Your task to perform on an android device: toggle notification dots Image 0: 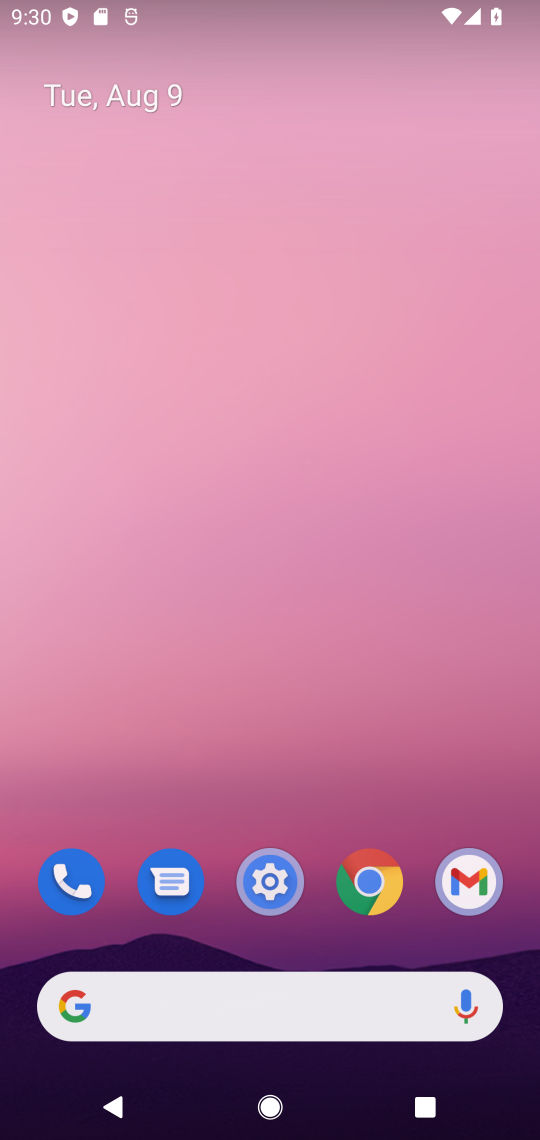
Step 0: press home button
Your task to perform on an android device: toggle notification dots Image 1: 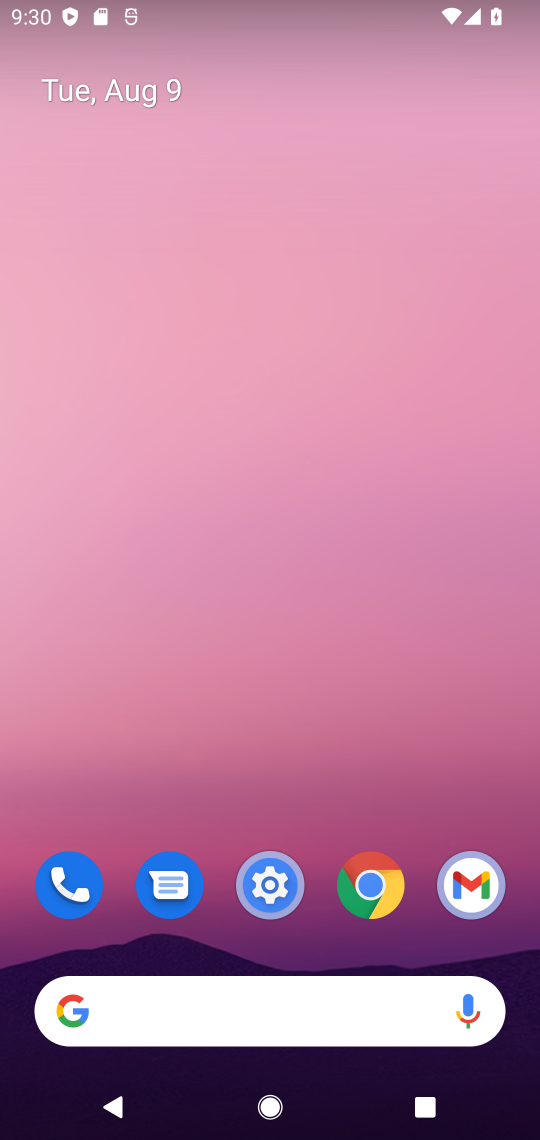
Step 1: click (267, 871)
Your task to perform on an android device: toggle notification dots Image 2: 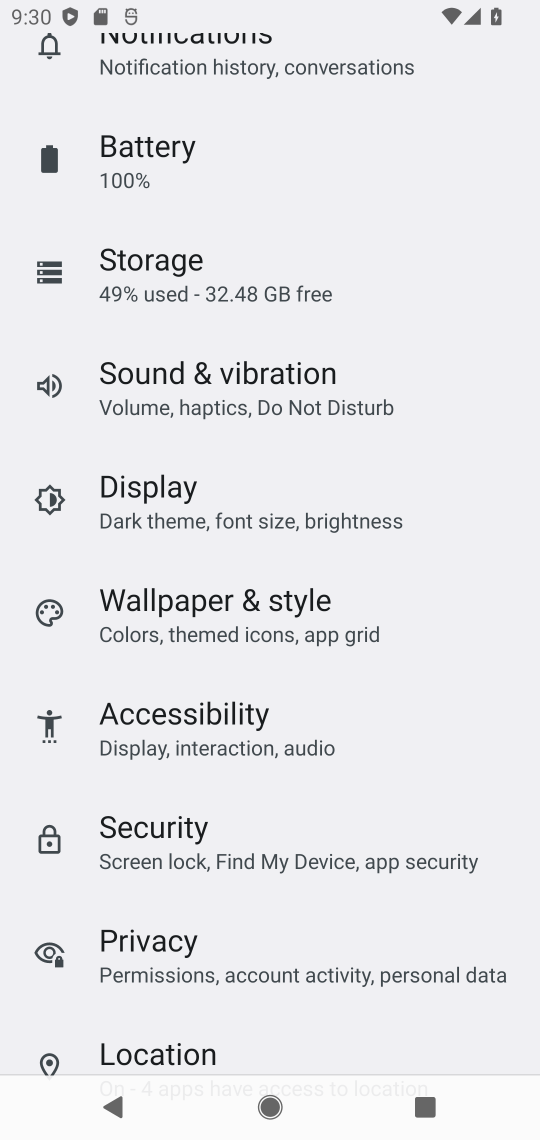
Step 2: click (213, 63)
Your task to perform on an android device: toggle notification dots Image 3: 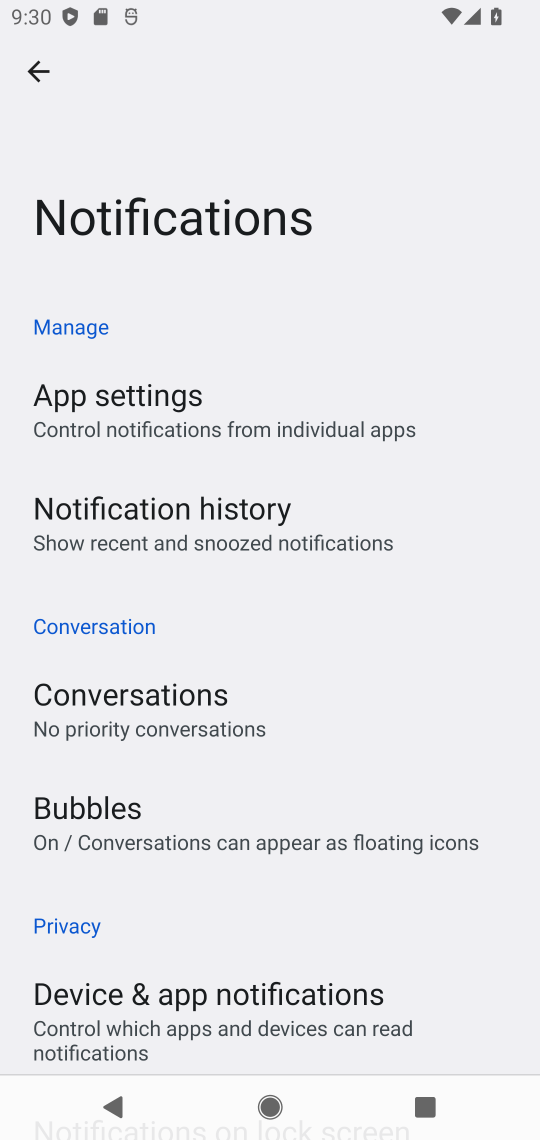
Step 3: drag from (253, 971) to (273, 299)
Your task to perform on an android device: toggle notification dots Image 4: 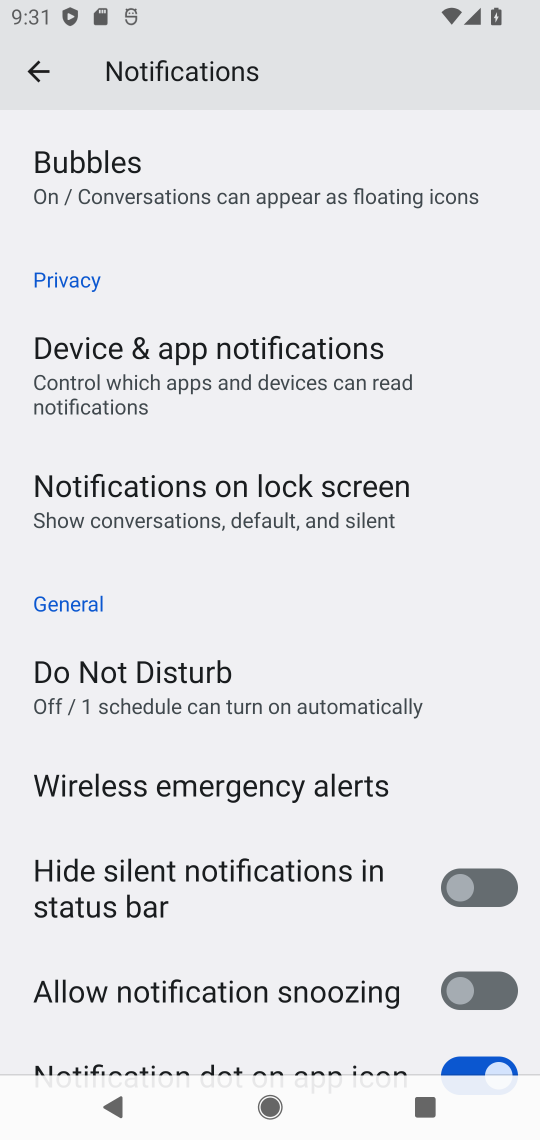
Step 4: drag from (303, 986) to (294, 448)
Your task to perform on an android device: toggle notification dots Image 5: 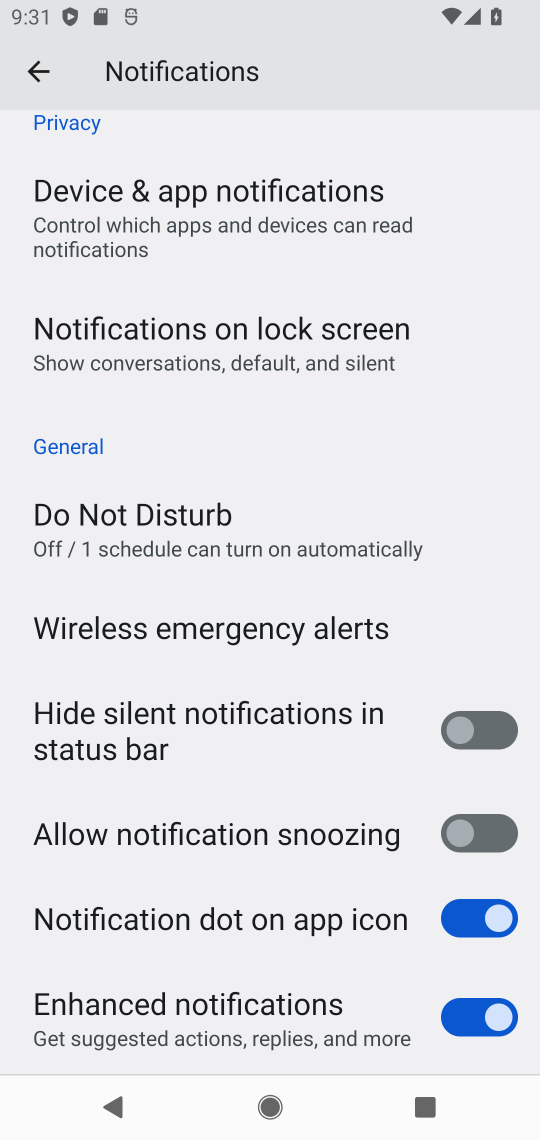
Step 5: click (460, 923)
Your task to perform on an android device: toggle notification dots Image 6: 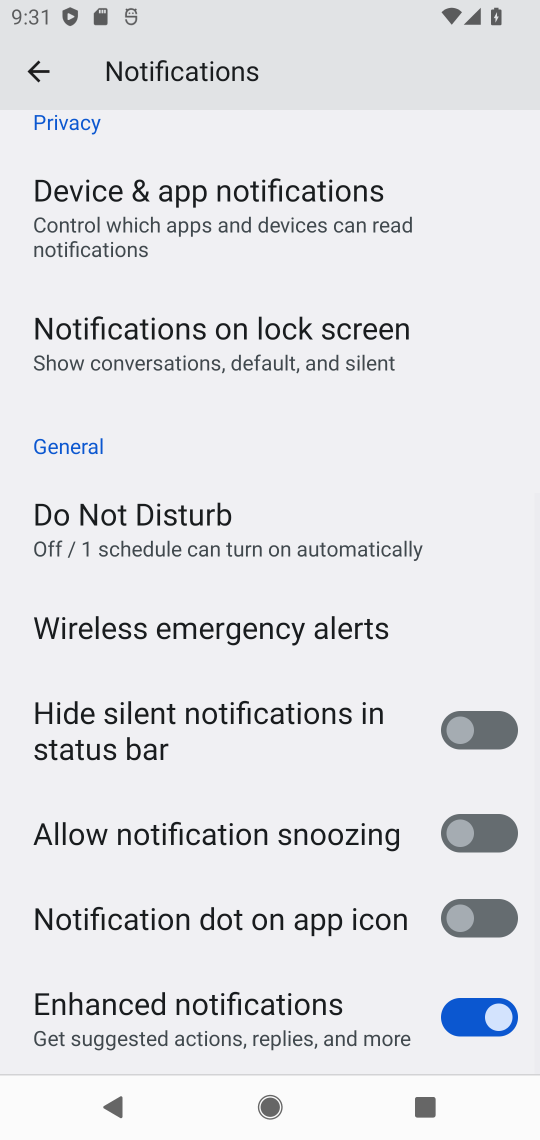
Step 6: task complete